Your task to perform on an android device: Search for vegetarian restaurants on Maps Image 0: 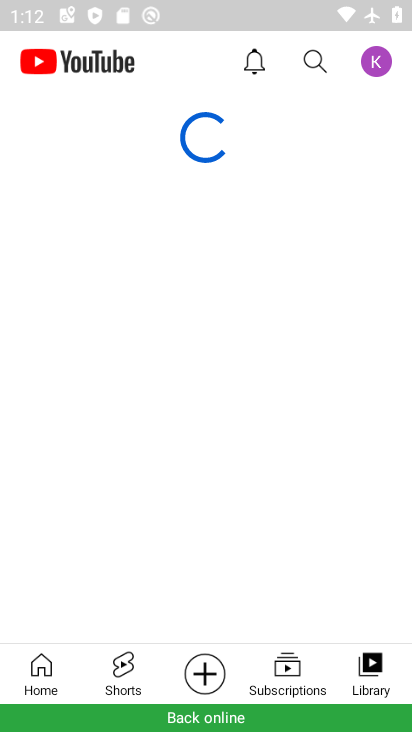
Step 0: press home button
Your task to perform on an android device: Search for vegetarian restaurants on Maps Image 1: 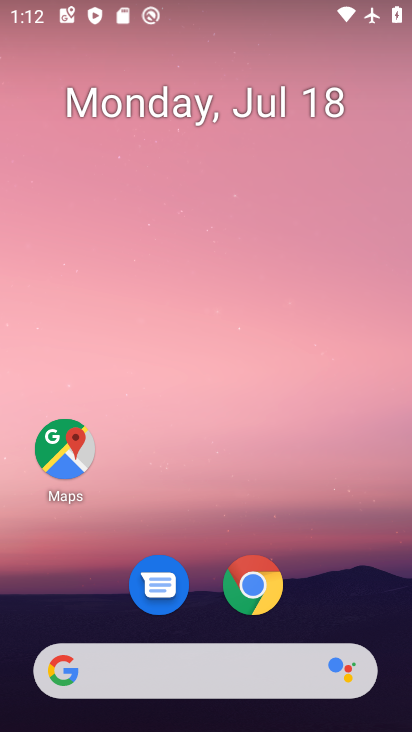
Step 1: click (68, 448)
Your task to perform on an android device: Search for vegetarian restaurants on Maps Image 2: 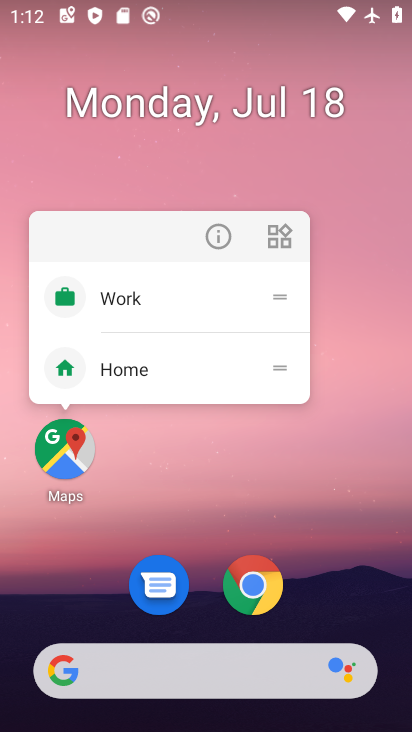
Step 2: click (53, 457)
Your task to perform on an android device: Search for vegetarian restaurants on Maps Image 3: 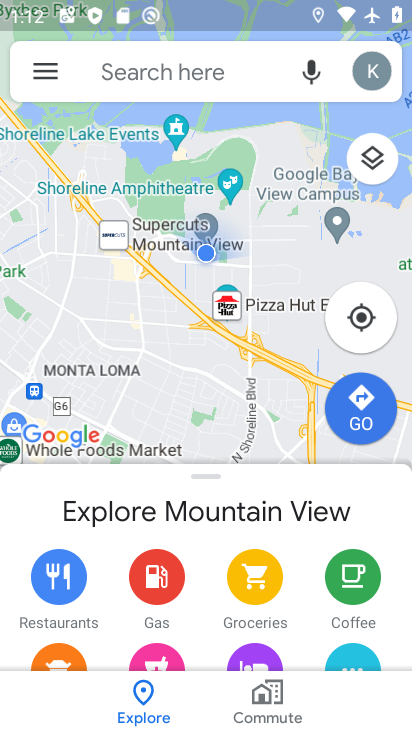
Step 3: click (178, 82)
Your task to perform on an android device: Search for vegetarian restaurants on Maps Image 4: 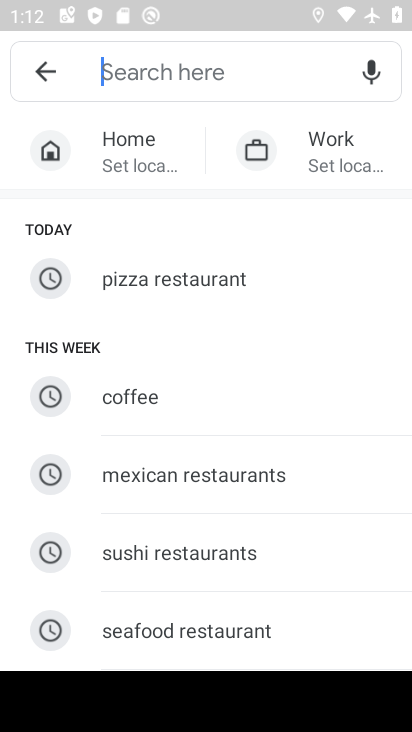
Step 4: drag from (271, 585) to (365, 191)
Your task to perform on an android device: Search for vegetarian restaurants on Maps Image 5: 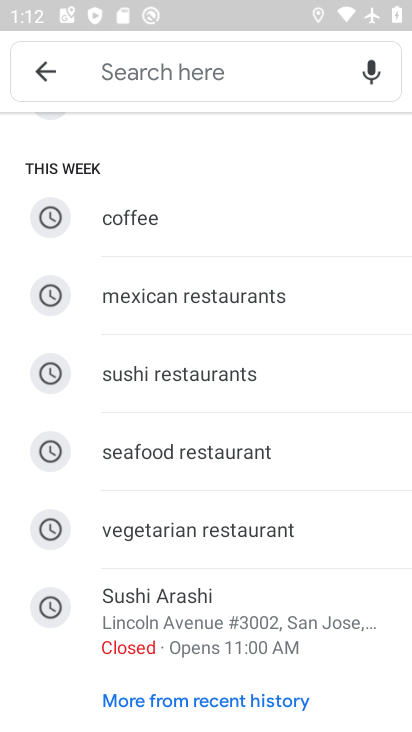
Step 5: click (220, 528)
Your task to perform on an android device: Search for vegetarian restaurants on Maps Image 6: 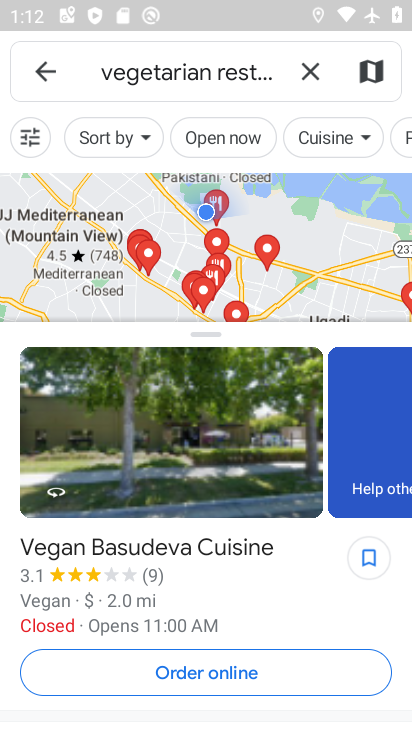
Step 6: task complete